Your task to perform on an android device: add a contact Image 0: 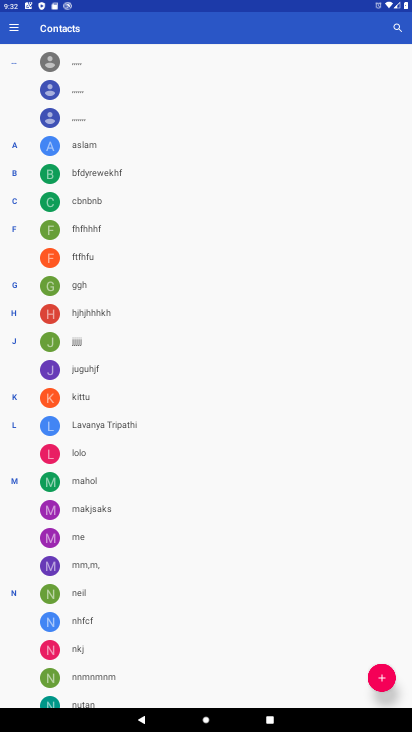
Step 0: press home button
Your task to perform on an android device: add a contact Image 1: 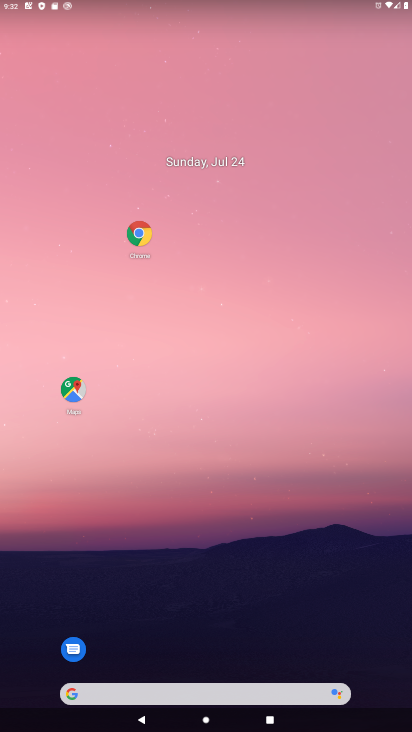
Step 1: drag from (188, 646) to (188, 56)
Your task to perform on an android device: add a contact Image 2: 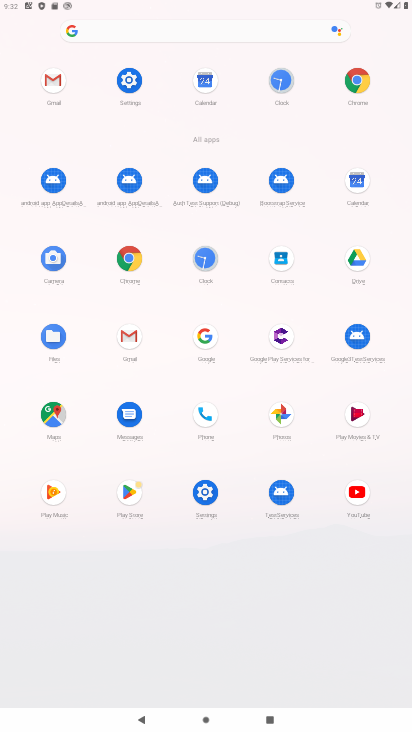
Step 2: click (285, 268)
Your task to perform on an android device: add a contact Image 3: 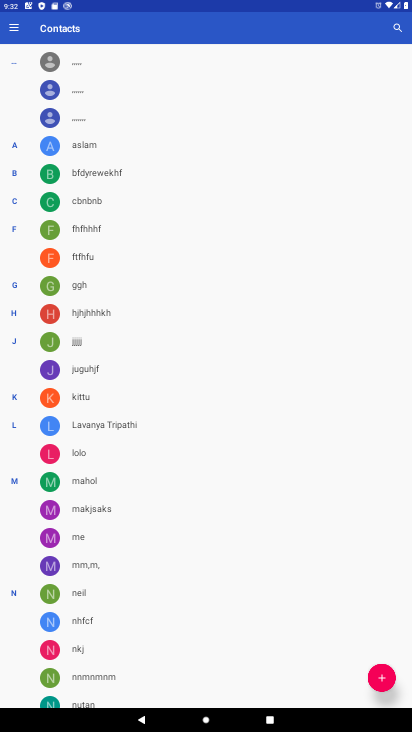
Step 3: click (385, 684)
Your task to perform on an android device: add a contact Image 4: 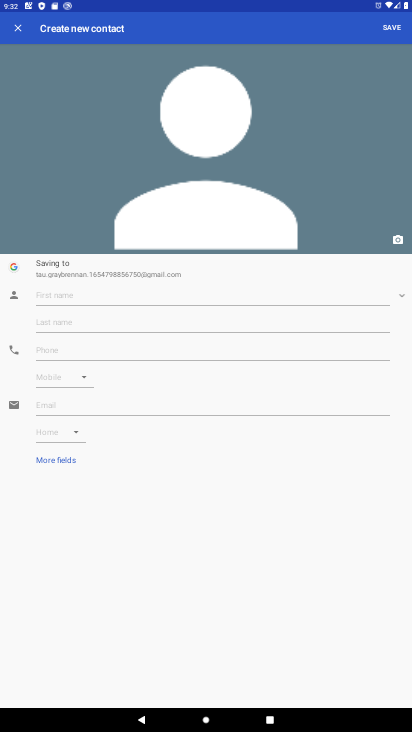
Step 4: click (212, 290)
Your task to perform on an android device: add a contact Image 5: 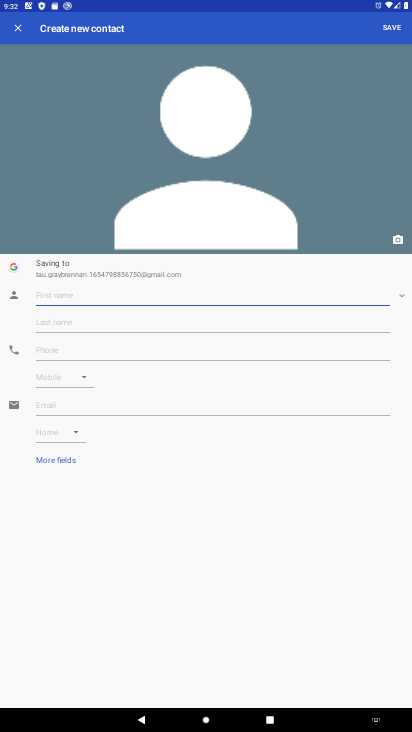
Step 5: type "Mika"
Your task to perform on an android device: add a contact Image 6: 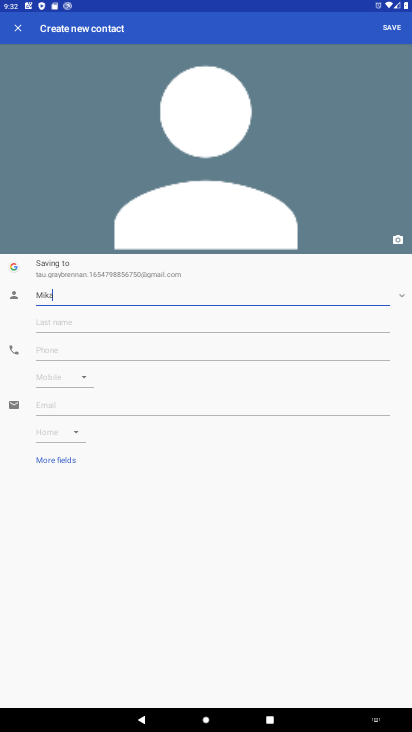
Step 6: click (170, 349)
Your task to perform on an android device: add a contact Image 7: 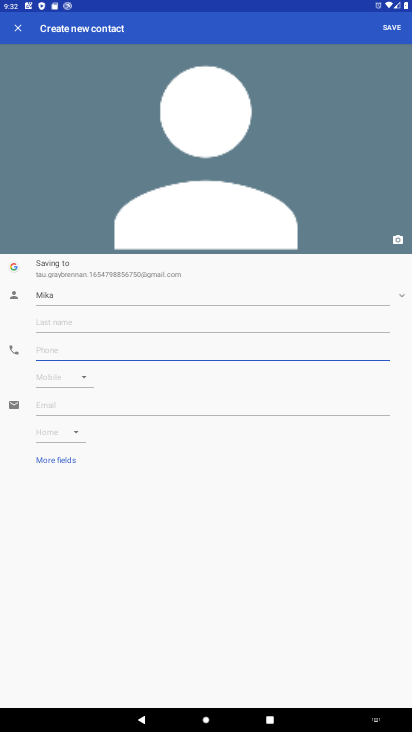
Step 7: type "9090989800"
Your task to perform on an android device: add a contact Image 8: 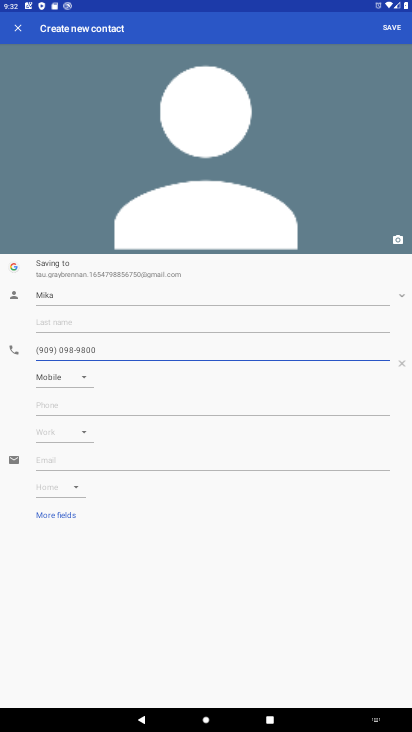
Step 8: click (405, 30)
Your task to perform on an android device: add a contact Image 9: 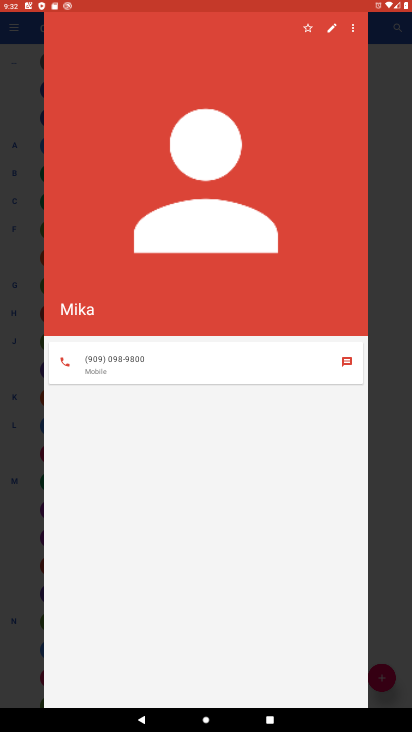
Step 9: task complete